Your task to perform on an android device: add a contact Image 0: 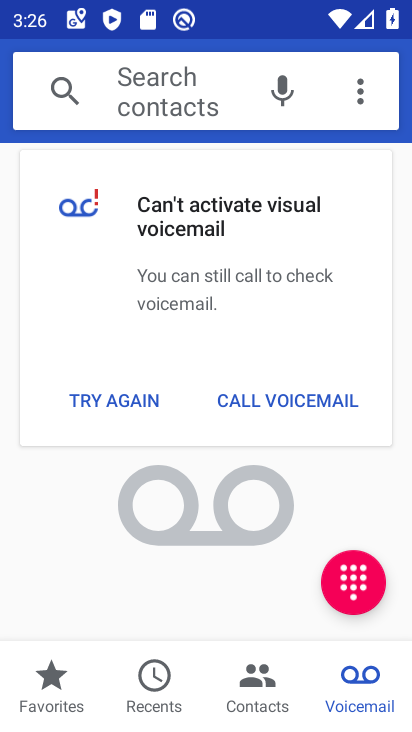
Step 0: press home button
Your task to perform on an android device: add a contact Image 1: 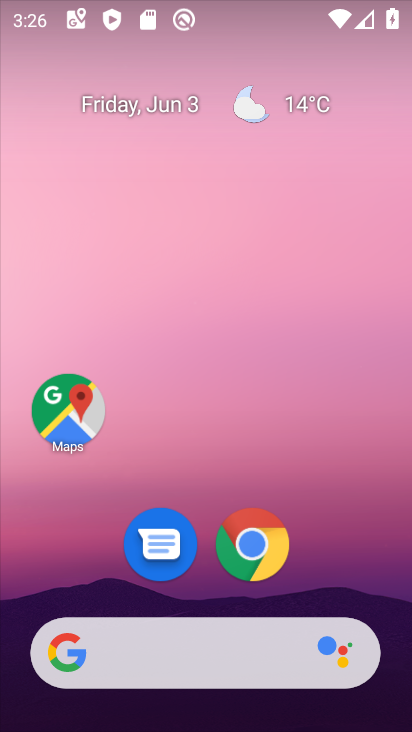
Step 1: drag from (397, 582) to (321, 53)
Your task to perform on an android device: add a contact Image 2: 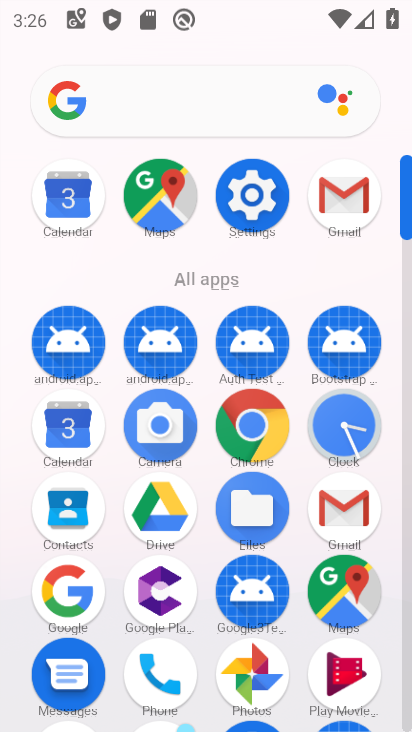
Step 2: click (68, 510)
Your task to perform on an android device: add a contact Image 3: 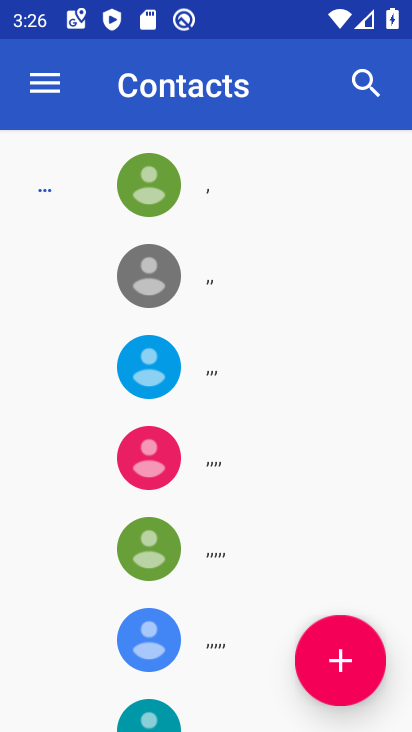
Step 3: click (338, 664)
Your task to perform on an android device: add a contact Image 4: 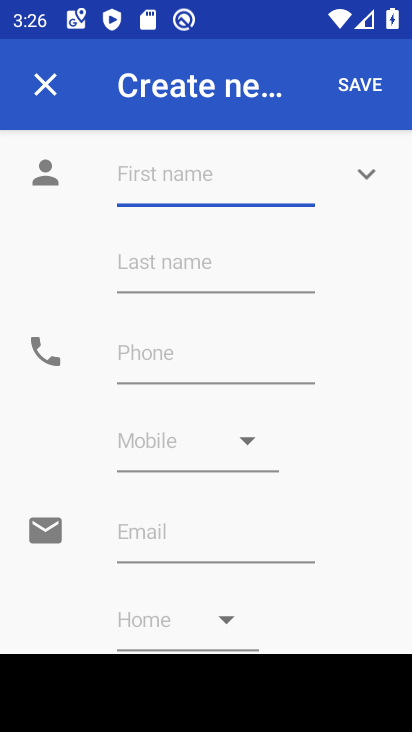
Step 4: type "ohjhhffhgjh"
Your task to perform on an android device: add a contact Image 5: 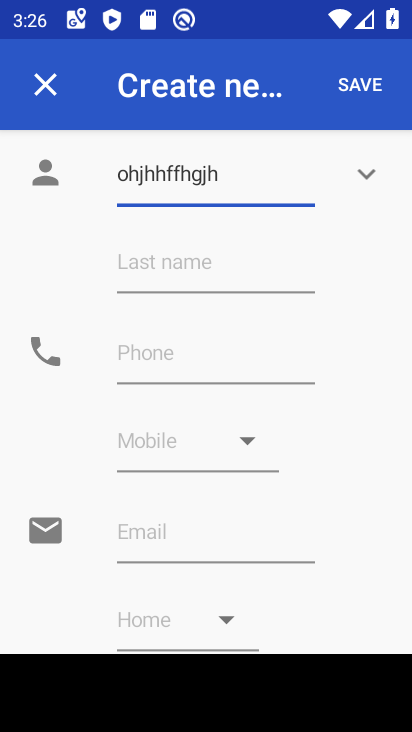
Step 5: click (158, 375)
Your task to perform on an android device: add a contact Image 6: 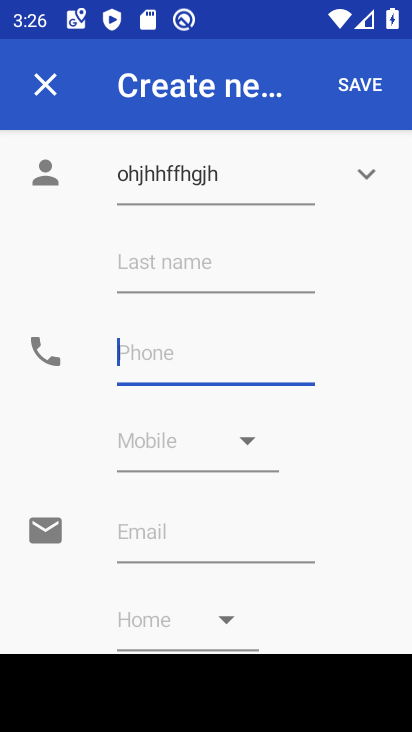
Step 6: type "0987653234567"
Your task to perform on an android device: add a contact Image 7: 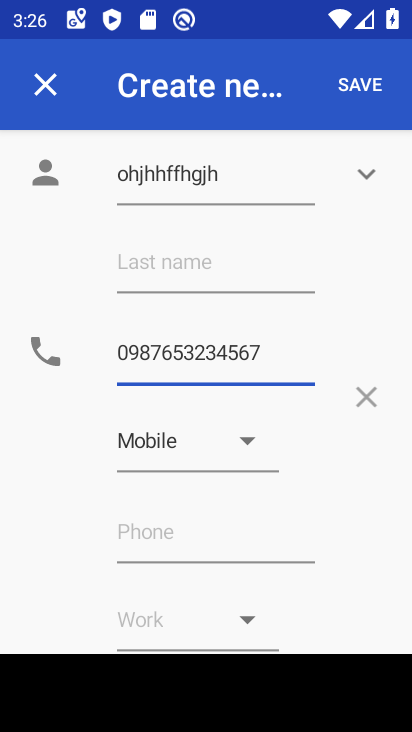
Step 7: click (257, 442)
Your task to perform on an android device: add a contact Image 8: 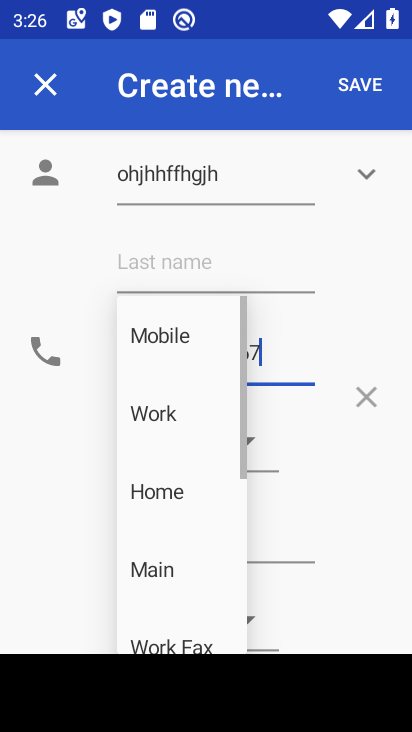
Step 8: click (160, 423)
Your task to perform on an android device: add a contact Image 9: 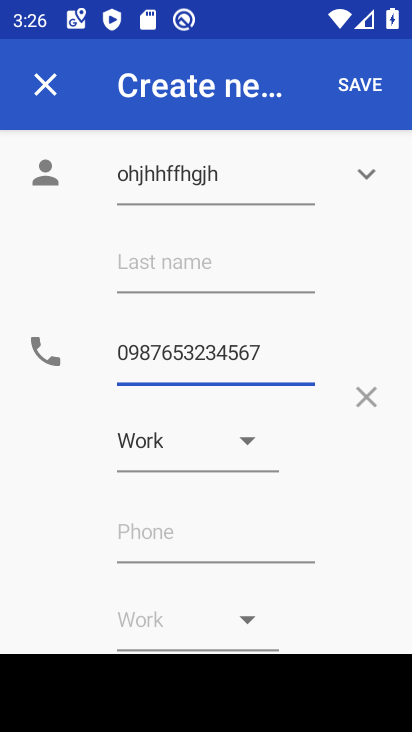
Step 9: click (352, 78)
Your task to perform on an android device: add a contact Image 10: 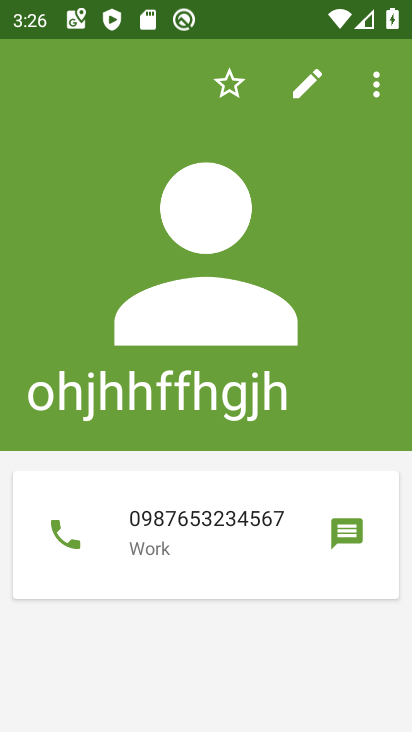
Step 10: task complete